Your task to perform on an android device: Open internet settings Image 0: 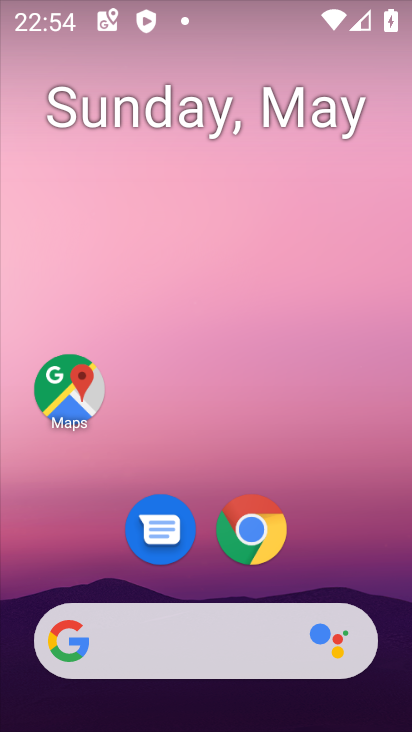
Step 0: drag from (366, 547) to (403, 3)
Your task to perform on an android device: Open internet settings Image 1: 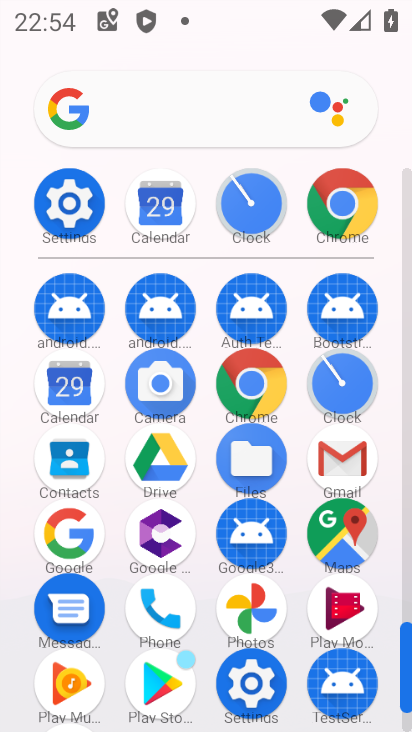
Step 1: click (70, 214)
Your task to perform on an android device: Open internet settings Image 2: 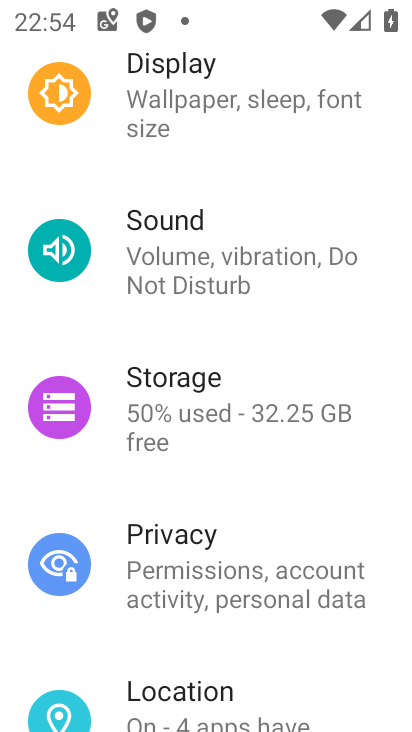
Step 2: task complete